Your task to perform on an android device: Open calendar and show me the fourth week of next month Image 0: 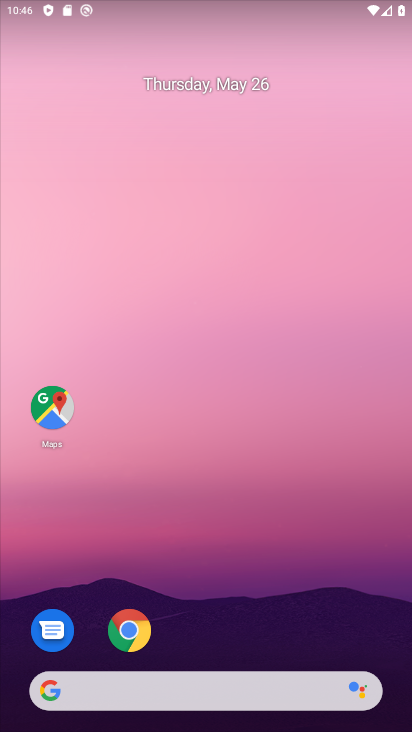
Step 0: drag from (267, 635) to (207, 39)
Your task to perform on an android device: Open calendar and show me the fourth week of next month Image 1: 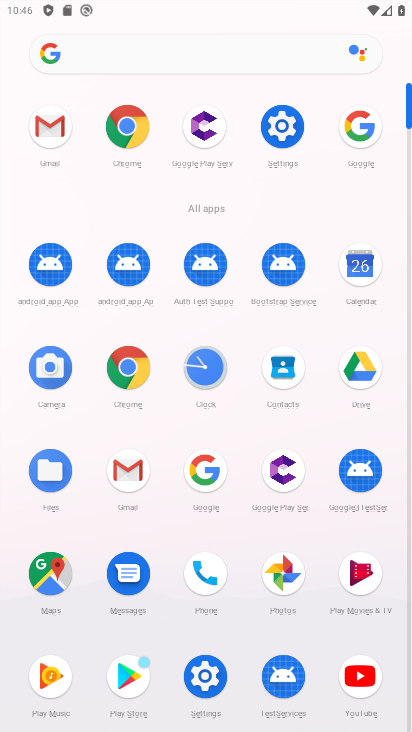
Step 1: click (358, 262)
Your task to perform on an android device: Open calendar and show me the fourth week of next month Image 2: 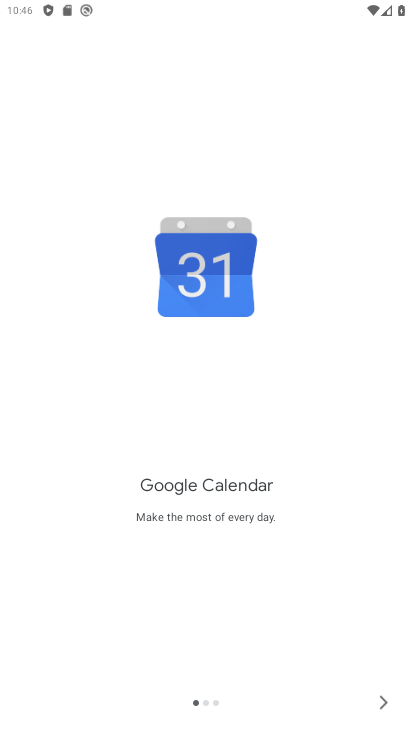
Step 2: click (382, 702)
Your task to perform on an android device: Open calendar and show me the fourth week of next month Image 3: 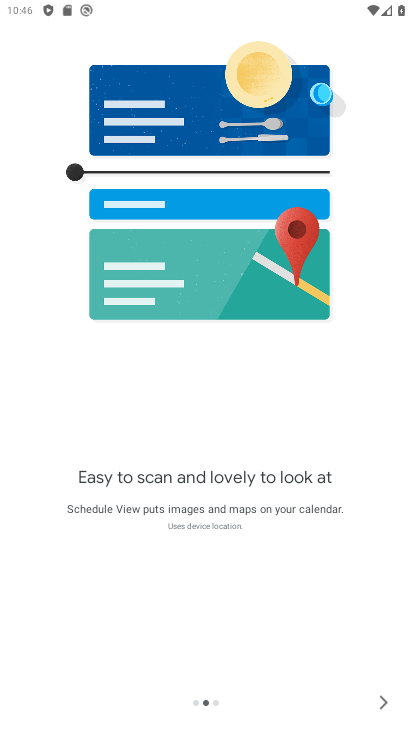
Step 3: click (382, 702)
Your task to perform on an android device: Open calendar and show me the fourth week of next month Image 4: 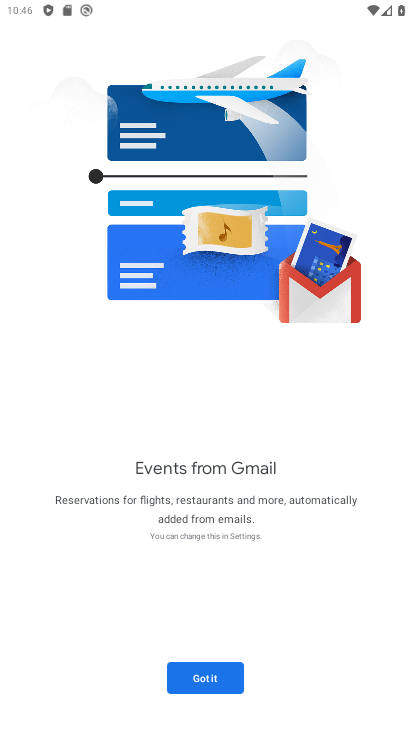
Step 4: click (204, 679)
Your task to perform on an android device: Open calendar and show me the fourth week of next month Image 5: 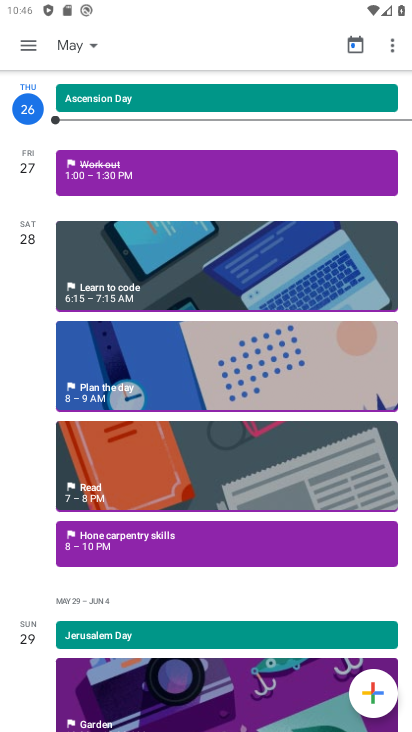
Step 5: click (91, 41)
Your task to perform on an android device: Open calendar and show me the fourth week of next month Image 6: 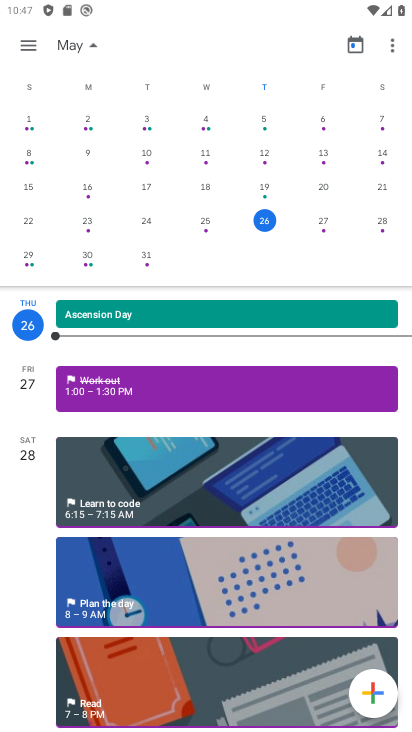
Step 6: drag from (368, 197) to (67, 185)
Your task to perform on an android device: Open calendar and show me the fourth week of next month Image 7: 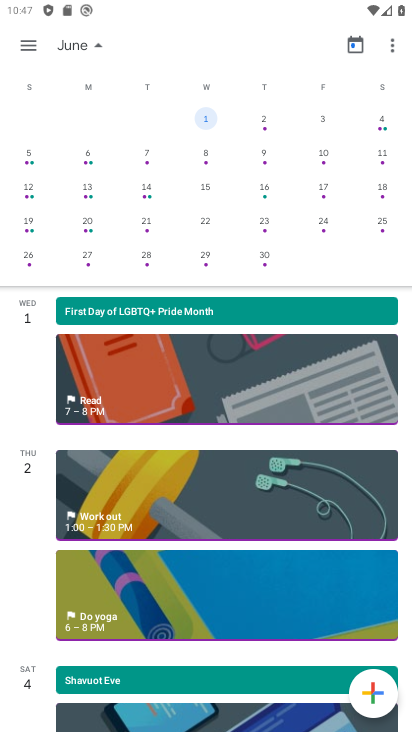
Step 7: click (93, 258)
Your task to perform on an android device: Open calendar and show me the fourth week of next month Image 8: 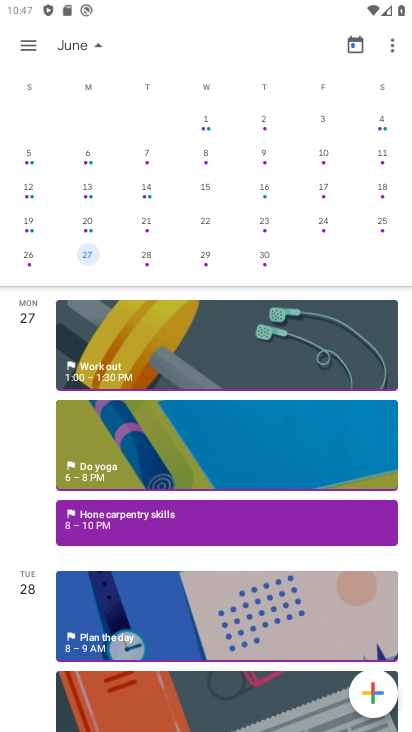
Step 8: click (27, 45)
Your task to perform on an android device: Open calendar and show me the fourth week of next month Image 9: 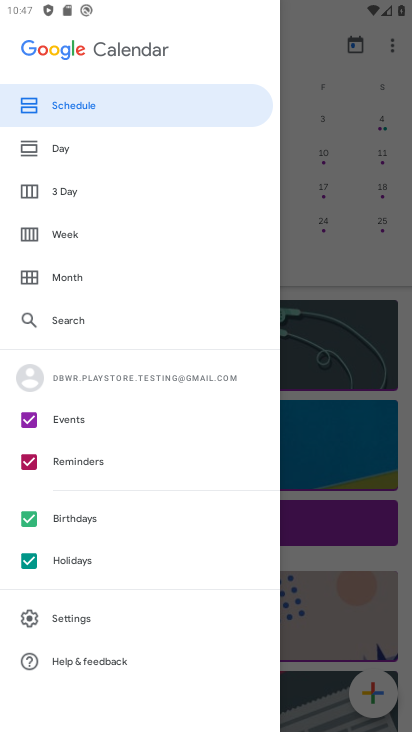
Step 9: click (64, 232)
Your task to perform on an android device: Open calendar and show me the fourth week of next month Image 10: 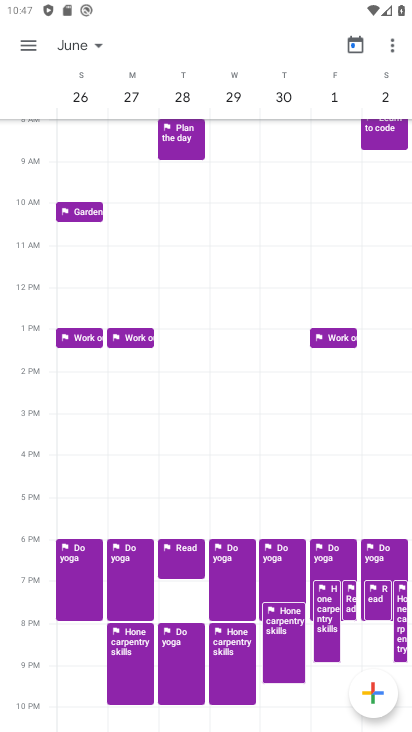
Step 10: task complete